Your task to perform on an android device: read, delete, or share a saved page in the chrome app Image 0: 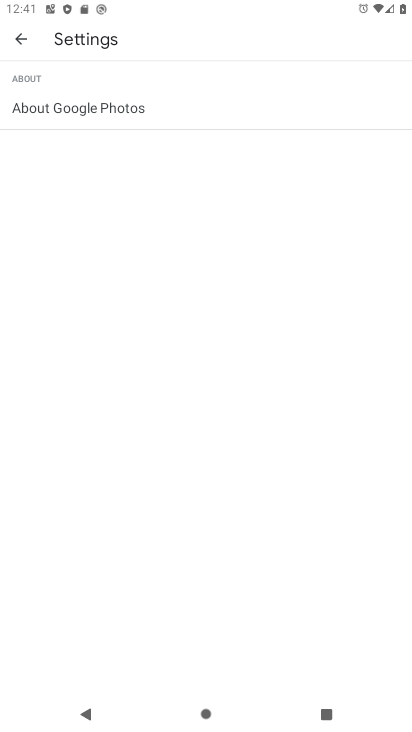
Step 0: press home button
Your task to perform on an android device: read, delete, or share a saved page in the chrome app Image 1: 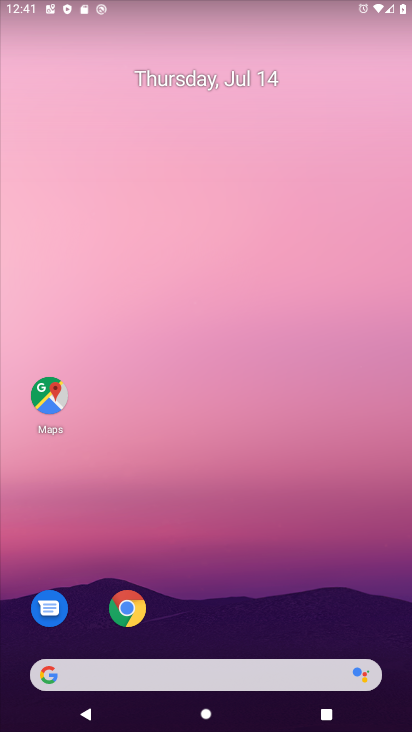
Step 1: click (128, 610)
Your task to perform on an android device: read, delete, or share a saved page in the chrome app Image 2: 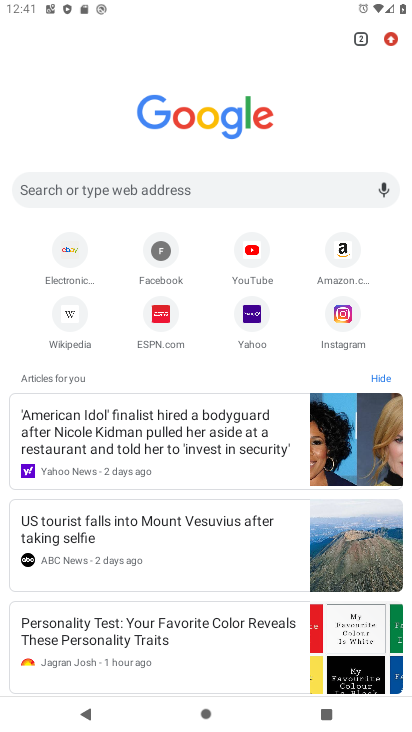
Step 2: click (390, 39)
Your task to perform on an android device: read, delete, or share a saved page in the chrome app Image 3: 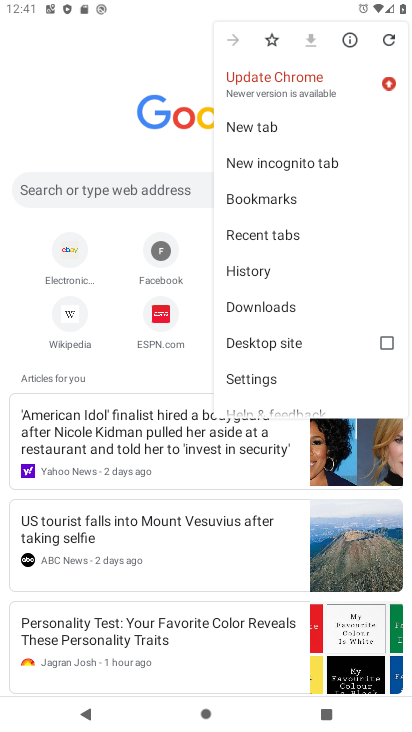
Step 3: click (266, 304)
Your task to perform on an android device: read, delete, or share a saved page in the chrome app Image 4: 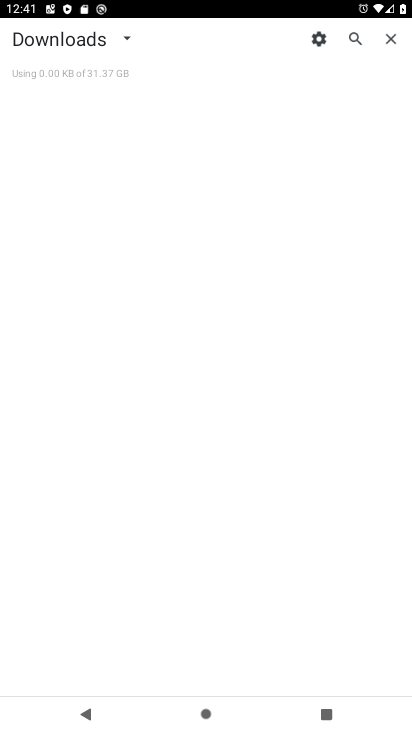
Step 4: click (125, 38)
Your task to perform on an android device: read, delete, or share a saved page in the chrome app Image 5: 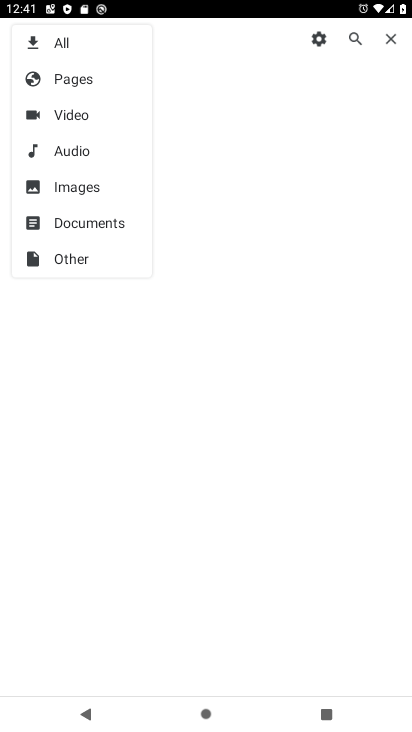
Step 5: click (78, 48)
Your task to perform on an android device: read, delete, or share a saved page in the chrome app Image 6: 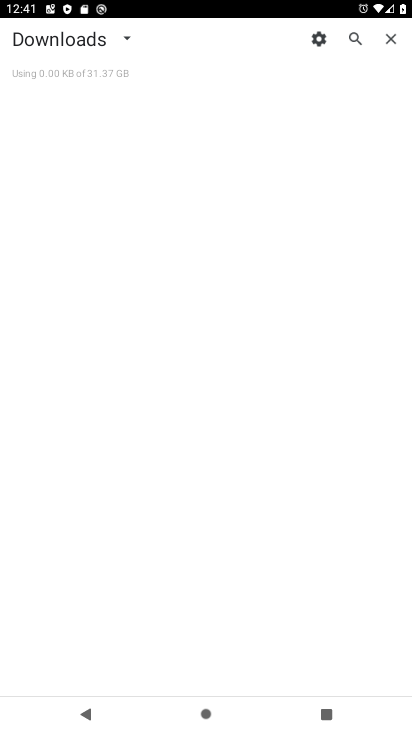
Step 6: click (123, 38)
Your task to perform on an android device: read, delete, or share a saved page in the chrome app Image 7: 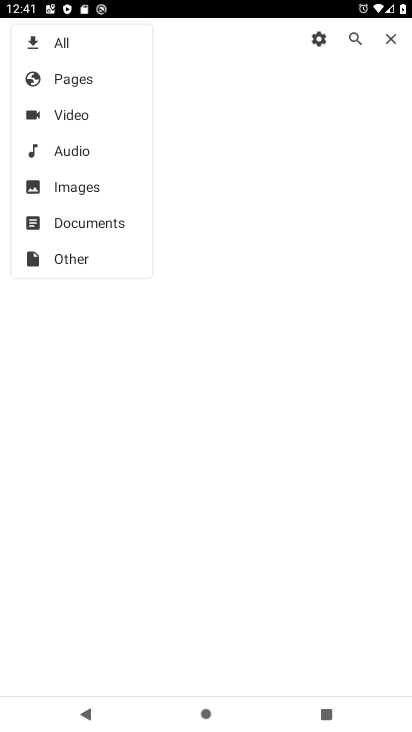
Step 7: click (68, 251)
Your task to perform on an android device: read, delete, or share a saved page in the chrome app Image 8: 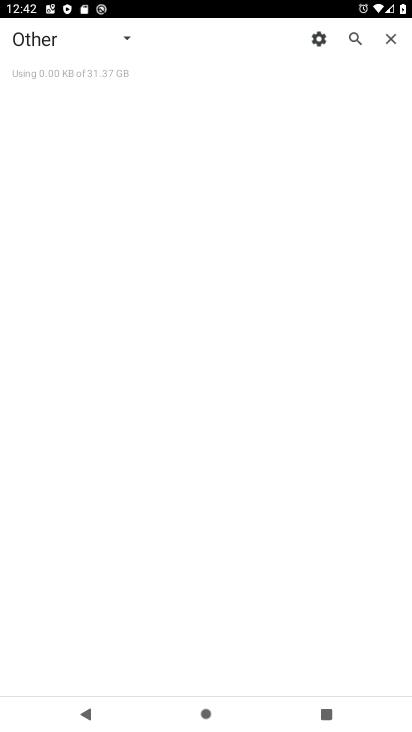
Step 8: task complete